Your task to perform on an android device: refresh tabs in the chrome app Image 0: 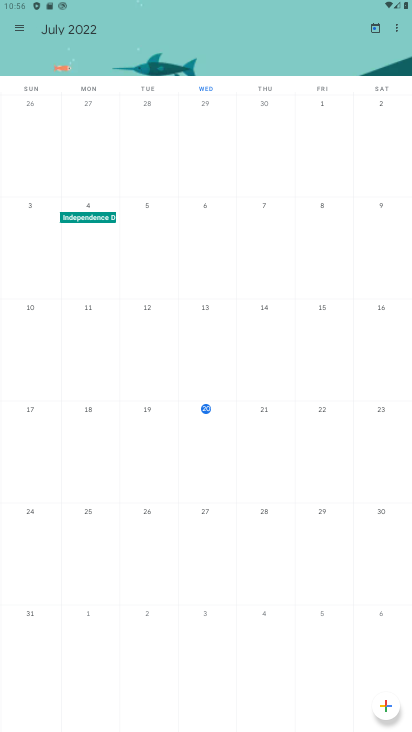
Step 0: press back button
Your task to perform on an android device: refresh tabs in the chrome app Image 1: 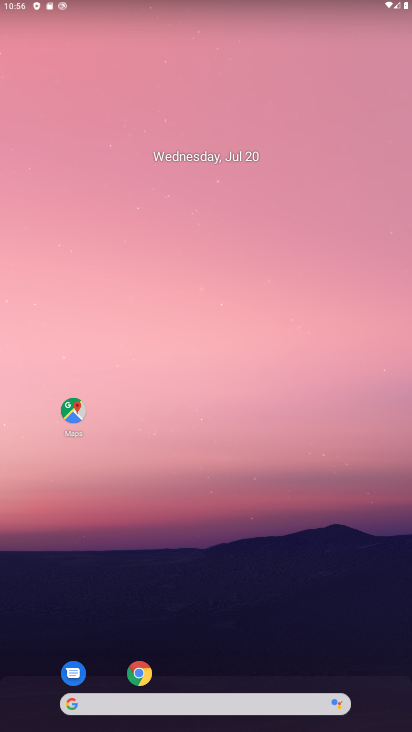
Step 1: click (142, 674)
Your task to perform on an android device: refresh tabs in the chrome app Image 2: 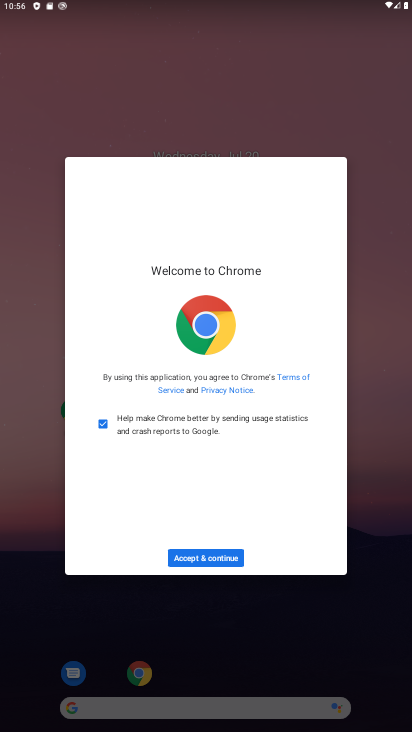
Step 2: click (192, 554)
Your task to perform on an android device: refresh tabs in the chrome app Image 3: 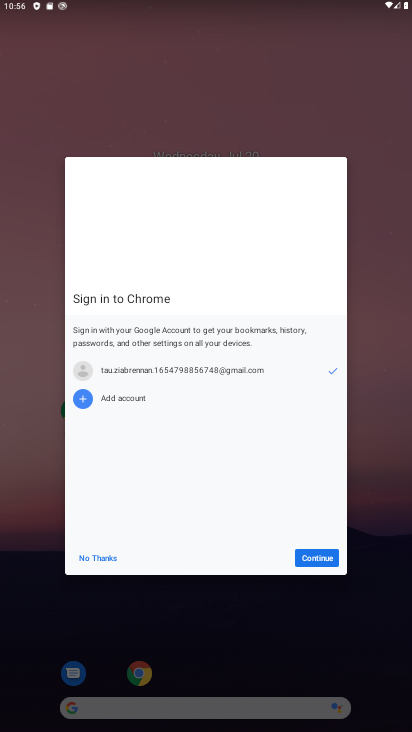
Step 3: click (328, 554)
Your task to perform on an android device: refresh tabs in the chrome app Image 4: 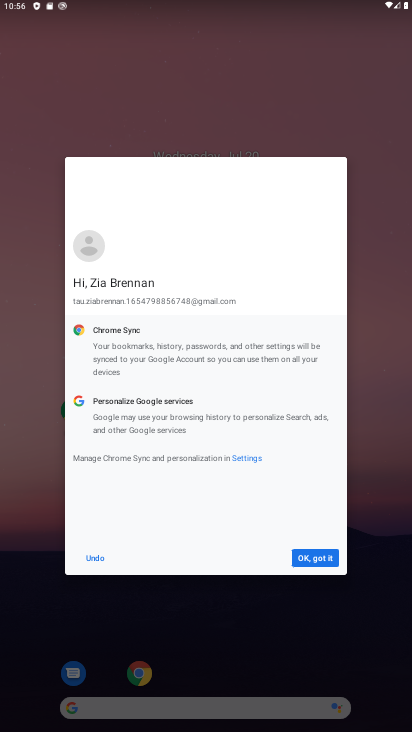
Step 4: click (311, 556)
Your task to perform on an android device: refresh tabs in the chrome app Image 5: 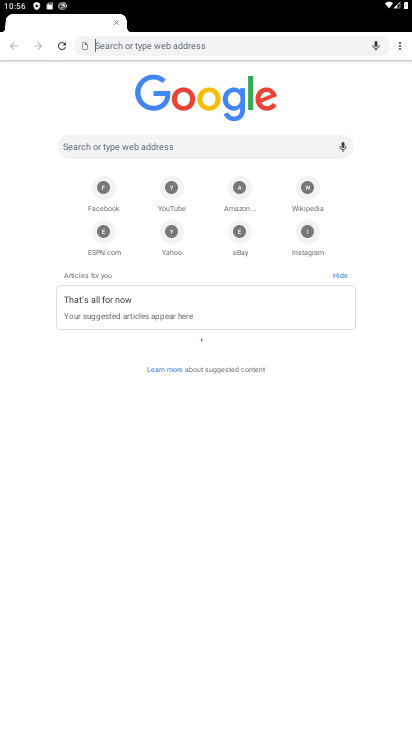
Step 5: click (401, 44)
Your task to perform on an android device: refresh tabs in the chrome app Image 6: 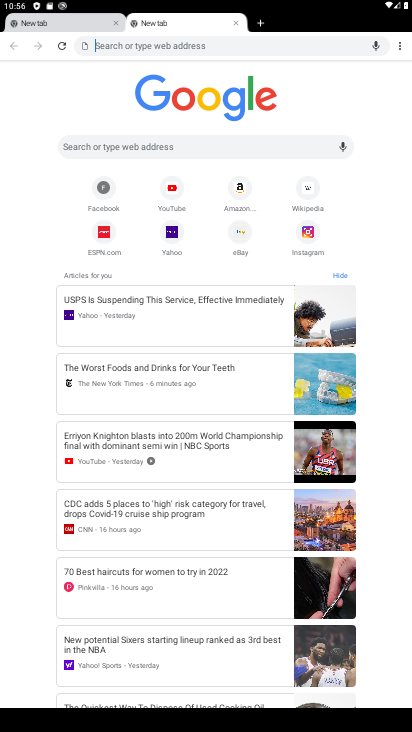
Step 6: task complete